Your task to perform on an android device: open app "Instagram" (install if not already installed) Image 0: 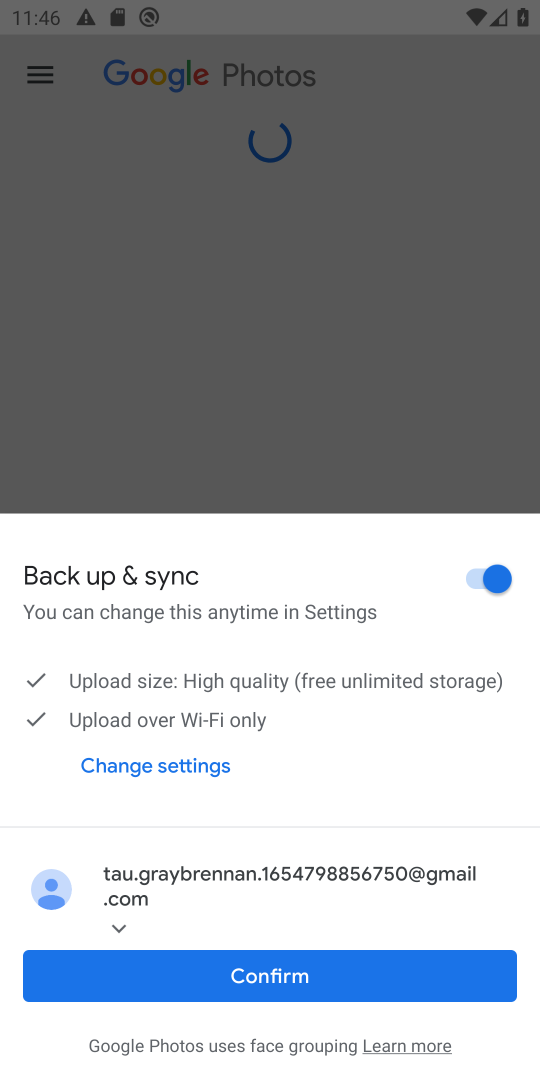
Step 0: press home button
Your task to perform on an android device: open app "Instagram" (install if not already installed) Image 1: 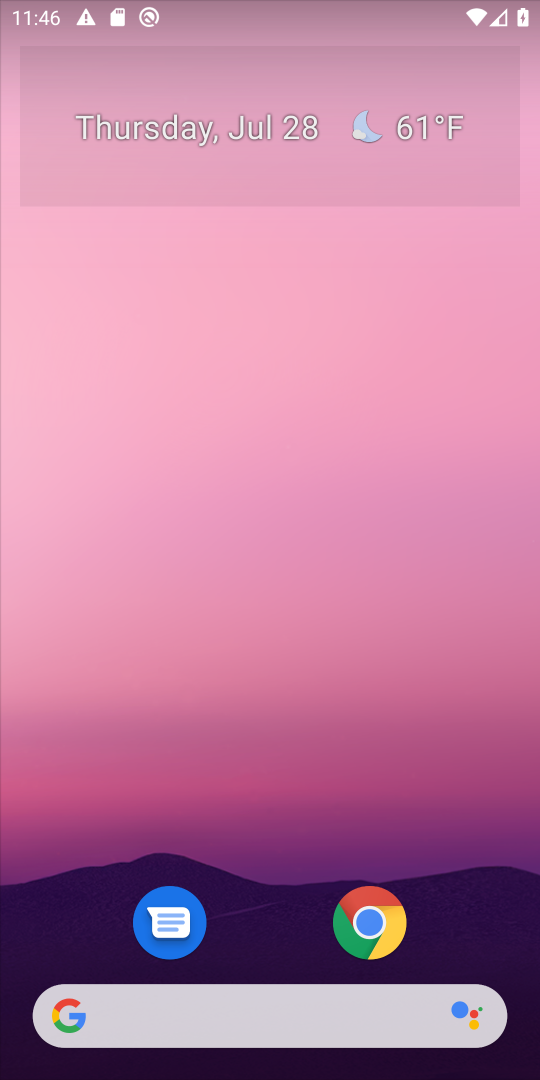
Step 1: drag from (488, 741) to (446, 2)
Your task to perform on an android device: open app "Instagram" (install if not already installed) Image 2: 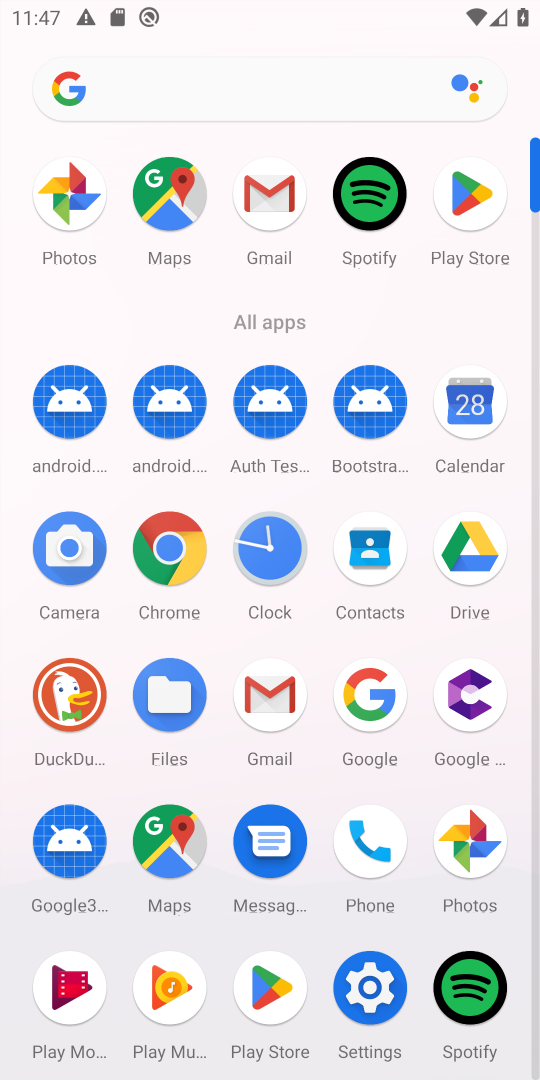
Step 2: click (479, 196)
Your task to perform on an android device: open app "Instagram" (install if not already installed) Image 3: 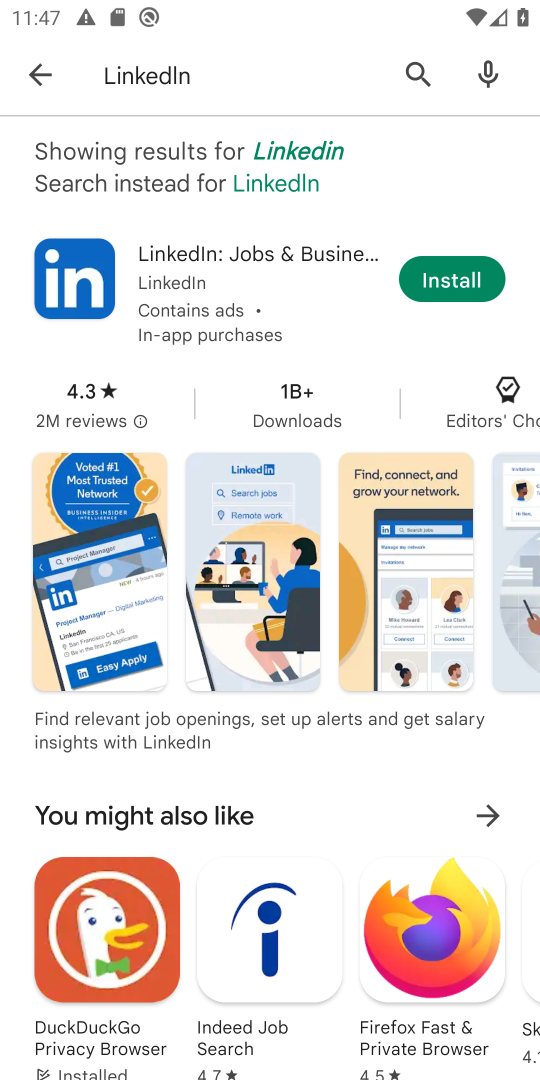
Step 3: click (297, 106)
Your task to perform on an android device: open app "Instagram" (install if not already installed) Image 4: 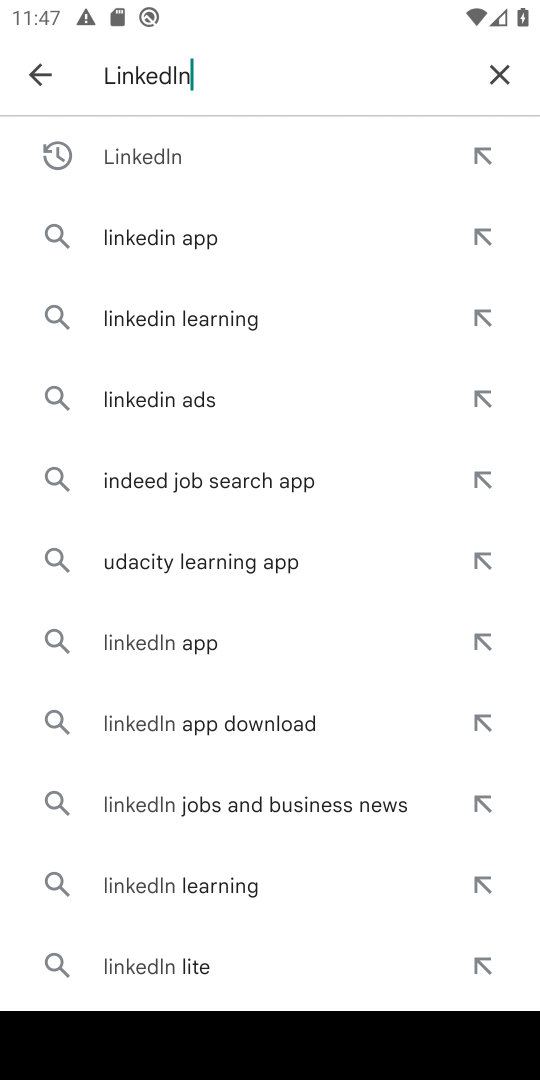
Step 4: click (502, 86)
Your task to perform on an android device: open app "Instagram" (install if not already installed) Image 5: 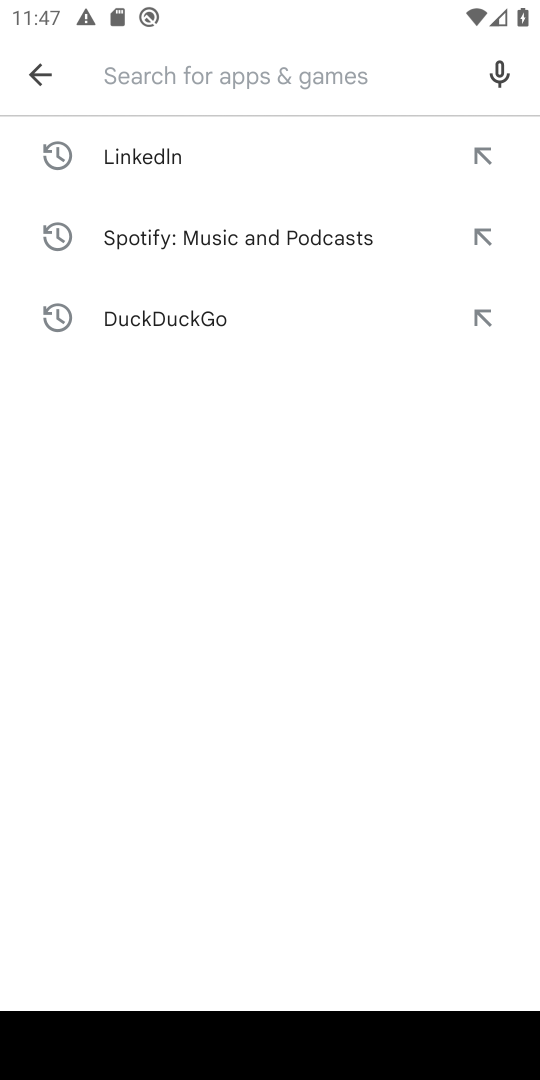
Step 5: type "Instagram"
Your task to perform on an android device: open app "Instagram" (install if not already installed) Image 6: 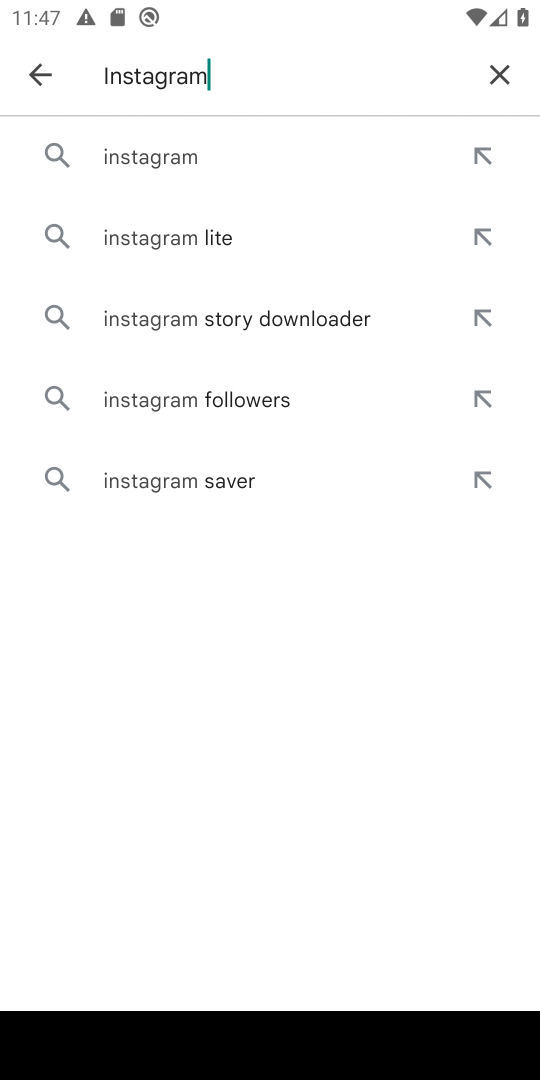
Step 6: click (284, 165)
Your task to perform on an android device: open app "Instagram" (install if not already installed) Image 7: 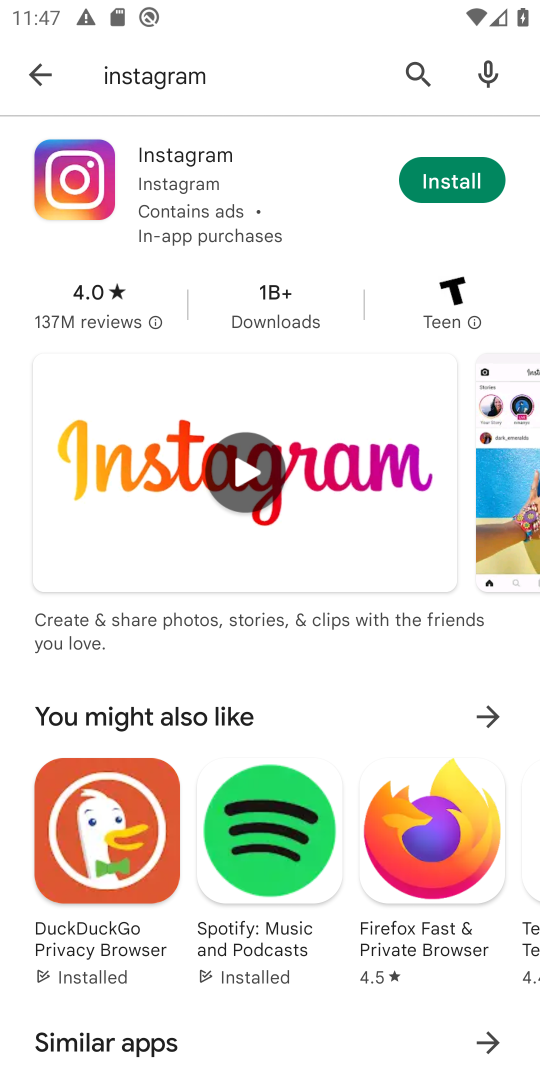
Step 7: click (479, 180)
Your task to perform on an android device: open app "Instagram" (install if not already installed) Image 8: 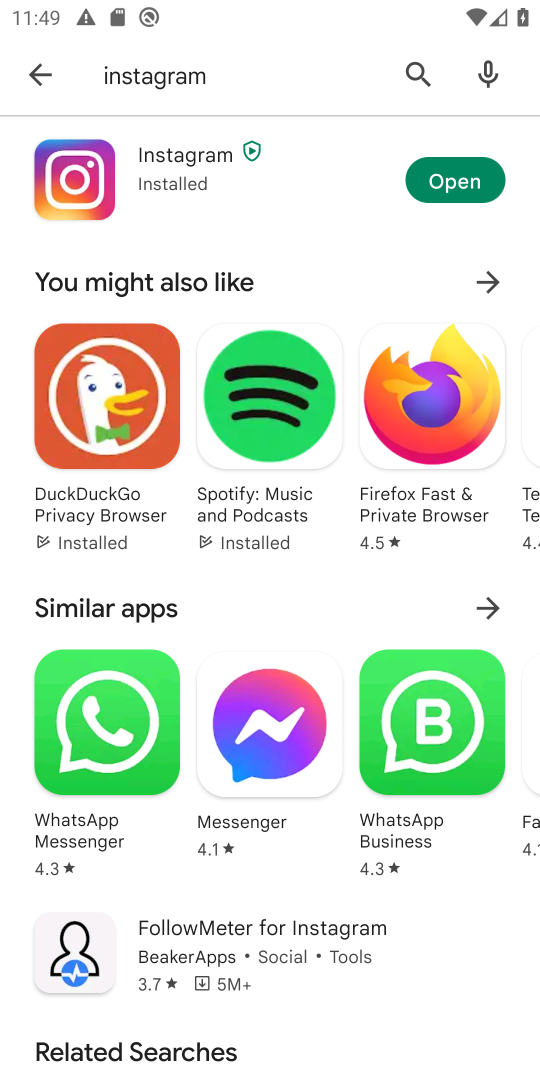
Step 8: click (482, 189)
Your task to perform on an android device: open app "Instagram" (install if not already installed) Image 9: 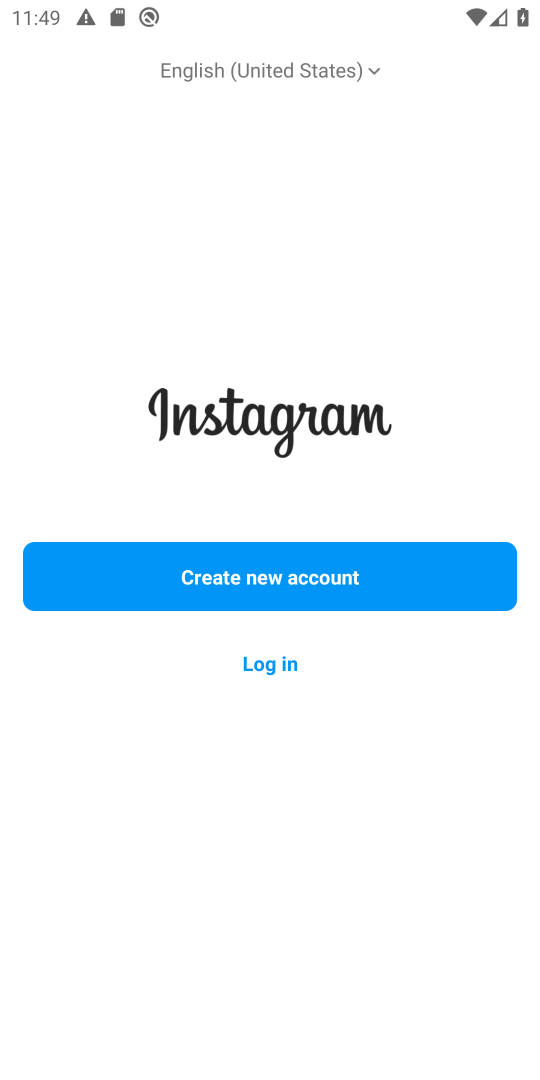
Step 9: task complete